Your task to perform on an android device: turn off location history Image 0: 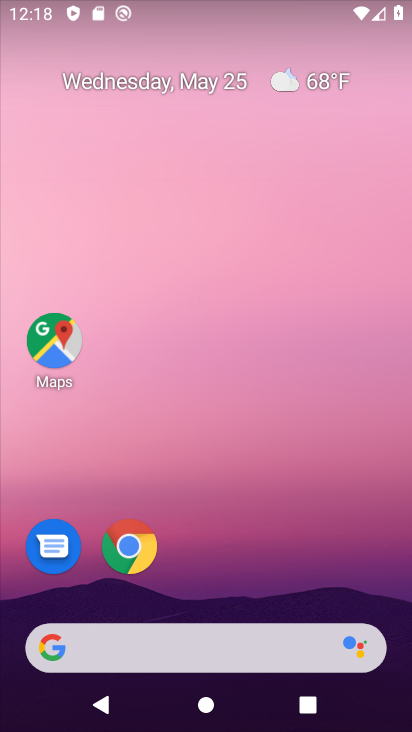
Step 0: drag from (338, 587) to (303, 44)
Your task to perform on an android device: turn off location history Image 1: 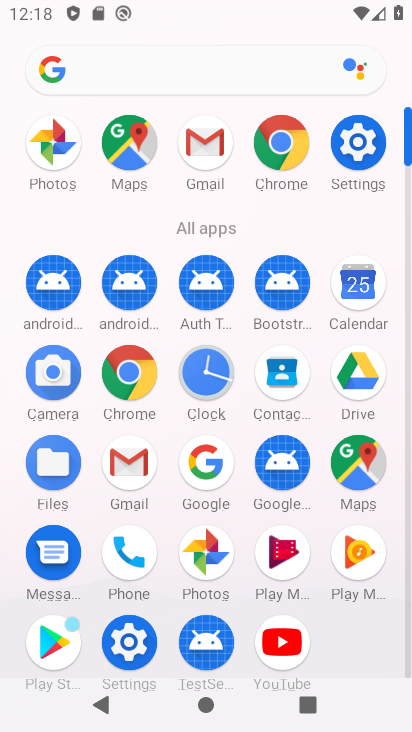
Step 1: click (370, 131)
Your task to perform on an android device: turn off location history Image 2: 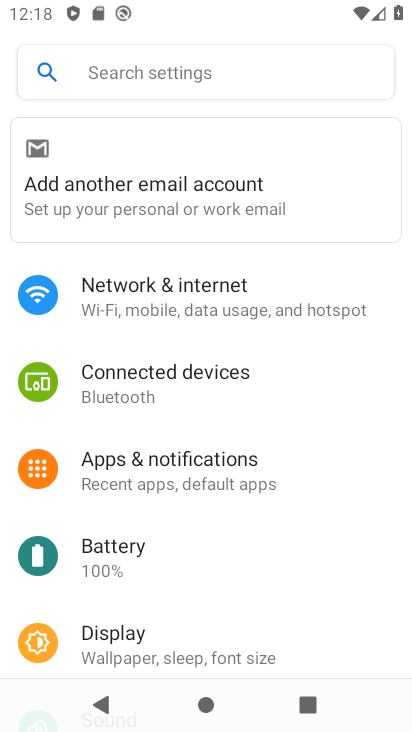
Step 2: drag from (214, 612) to (226, 248)
Your task to perform on an android device: turn off location history Image 3: 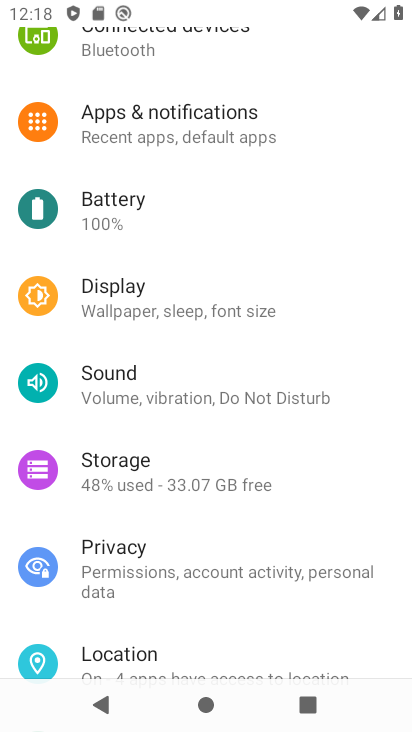
Step 3: drag from (196, 609) to (214, 403)
Your task to perform on an android device: turn off location history Image 4: 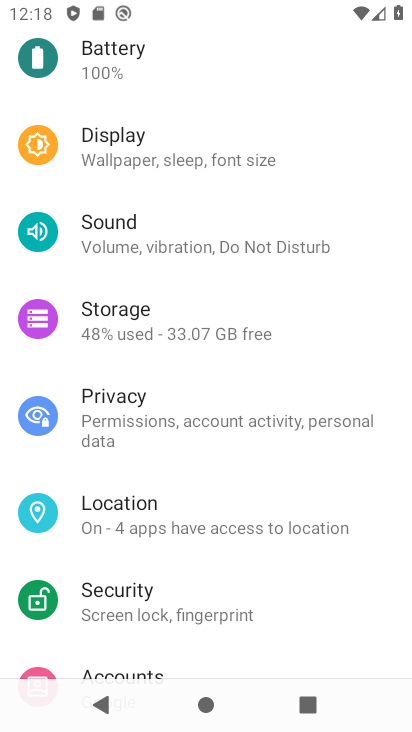
Step 4: click (216, 507)
Your task to perform on an android device: turn off location history Image 5: 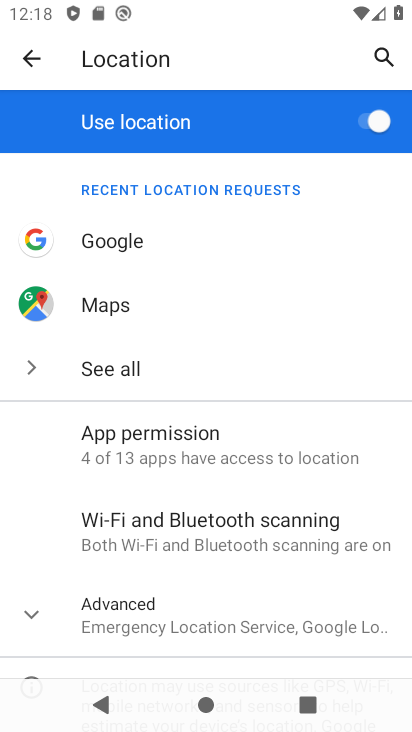
Step 5: click (178, 607)
Your task to perform on an android device: turn off location history Image 6: 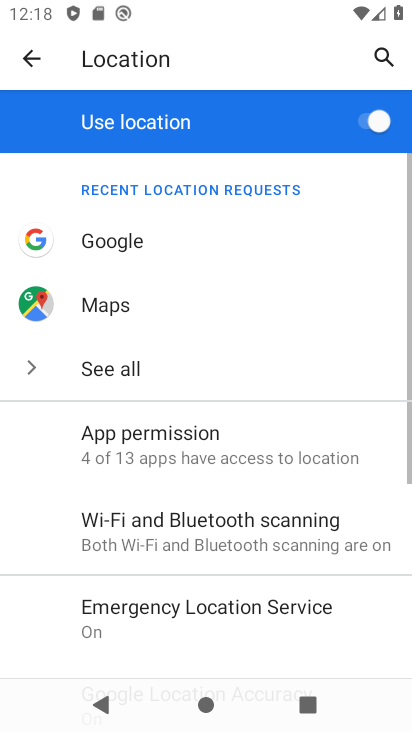
Step 6: drag from (214, 581) to (221, 292)
Your task to perform on an android device: turn off location history Image 7: 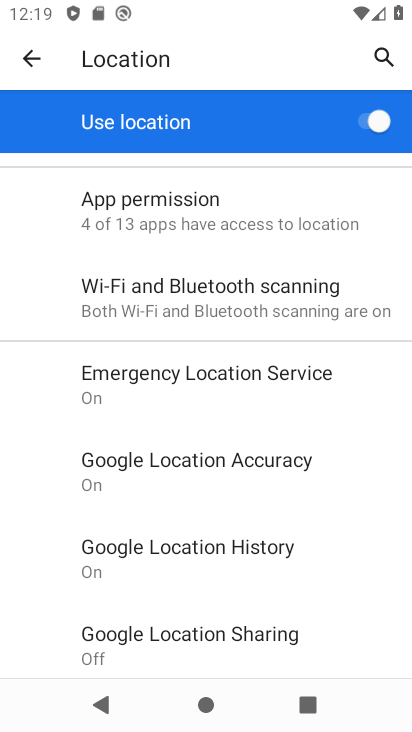
Step 7: click (216, 532)
Your task to perform on an android device: turn off location history Image 8: 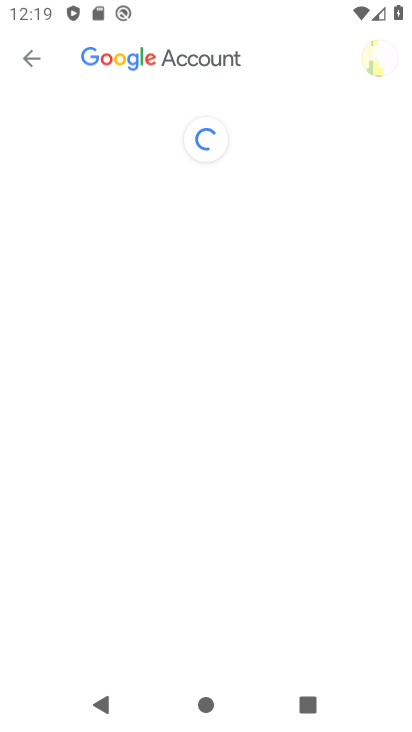
Step 8: task complete